Your task to perform on an android device: turn pop-ups off in chrome Image 0: 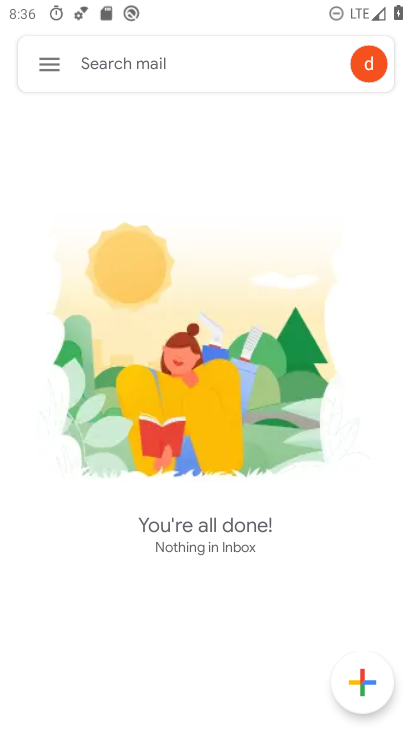
Step 0: press back button
Your task to perform on an android device: turn pop-ups off in chrome Image 1: 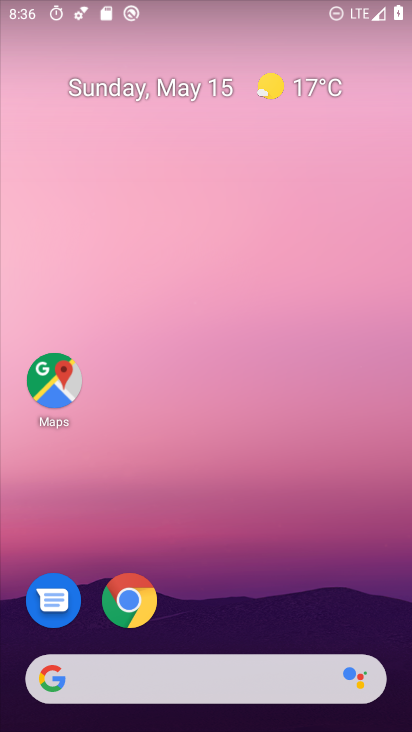
Step 1: click (128, 599)
Your task to perform on an android device: turn pop-ups off in chrome Image 2: 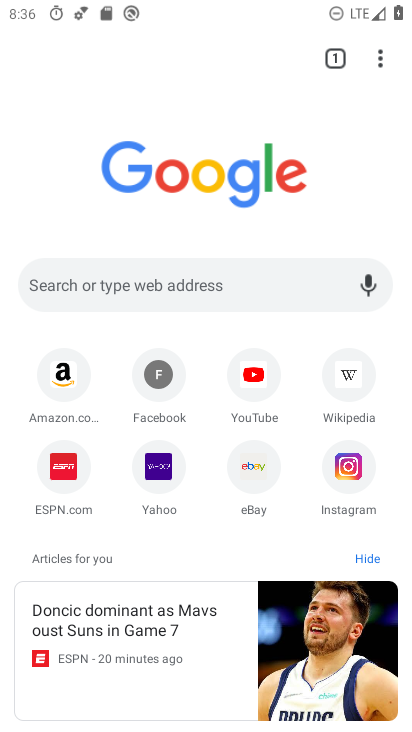
Step 2: click (382, 58)
Your task to perform on an android device: turn pop-ups off in chrome Image 3: 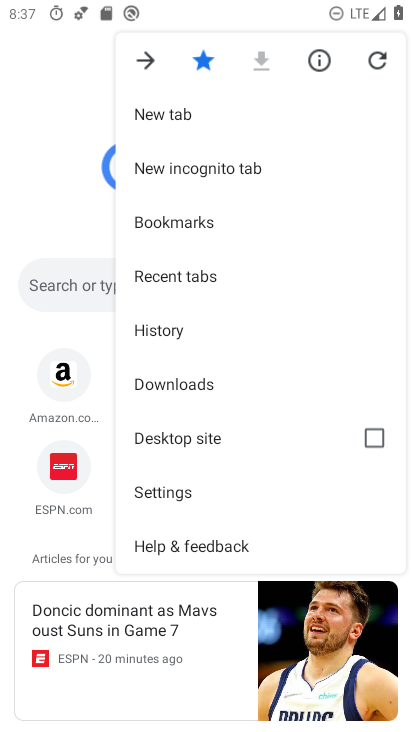
Step 3: click (173, 491)
Your task to perform on an android device: turn pop-ups off in chrome Image 4: 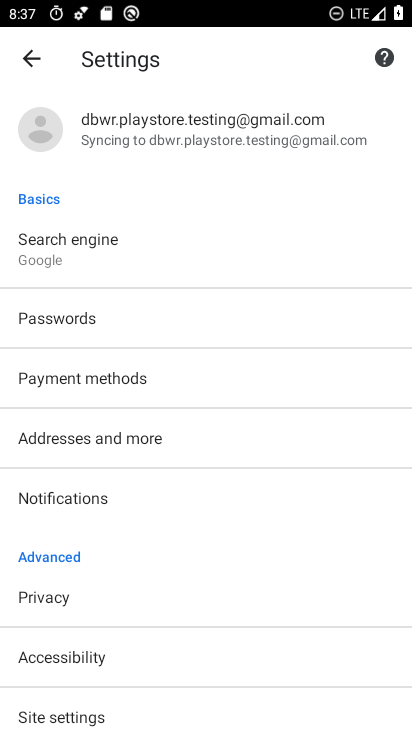
Step 4: drag from (130, 581) to (168, 447)
Your task to perform on an android device: turn pop-ups off in chrome Image 5: 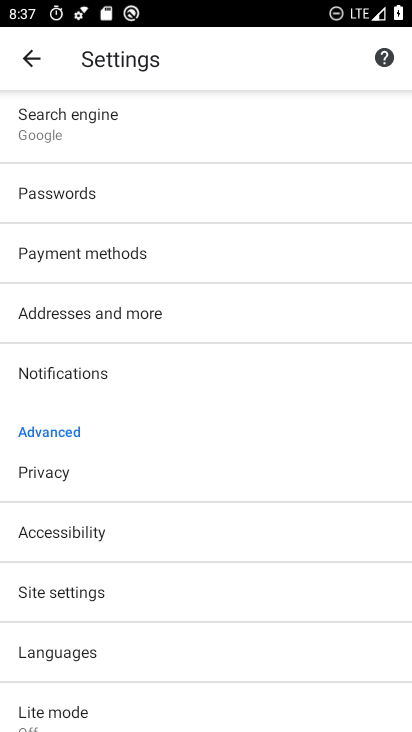
Step 5: click (89, 588)
Your task to perform on an android device: turn pop-ups off in chrome Image 6: 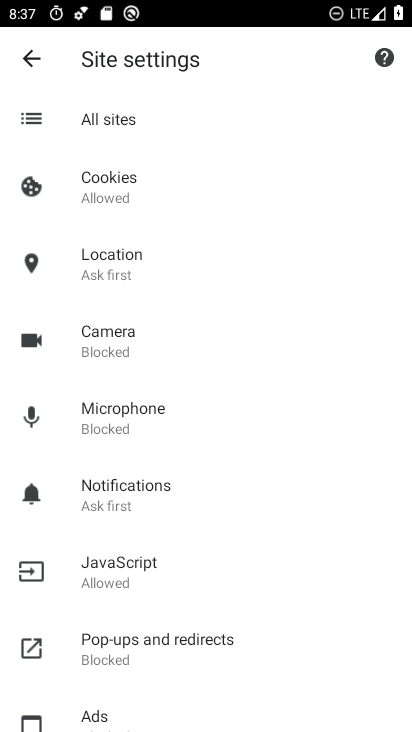
Step 6: click (144, 641)
Your task to perform on an android device: turn pop-ups off in chrome Image 7: 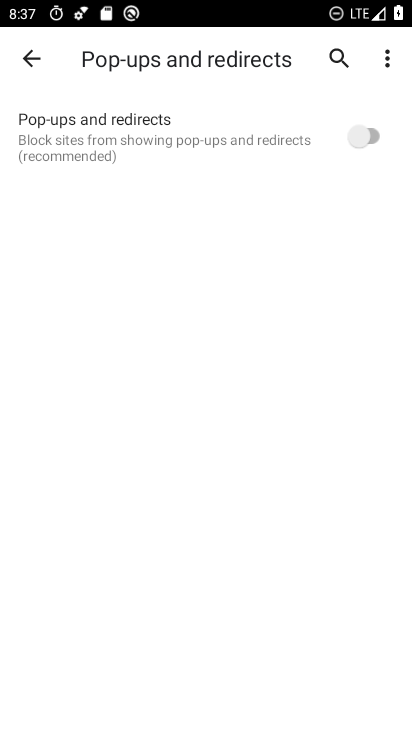
Step 7: task complete